Your task to perform on an android device: Open sound settings Image 0: 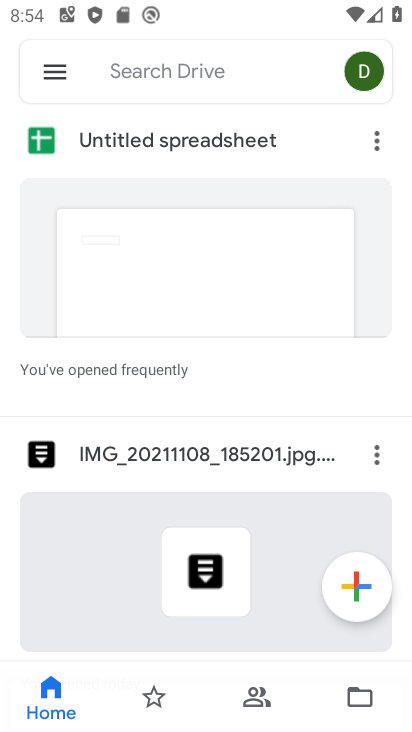
Step 0: press home button
Your task to perform on an android device: Open sound settings Image 1: 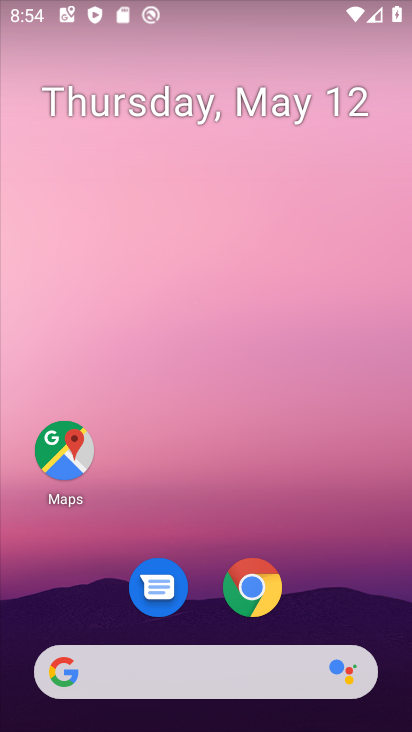
Step 1: drag from (349, 594) to (327, 213)
Your task to perform on an android device: Open sound settings Image 2: 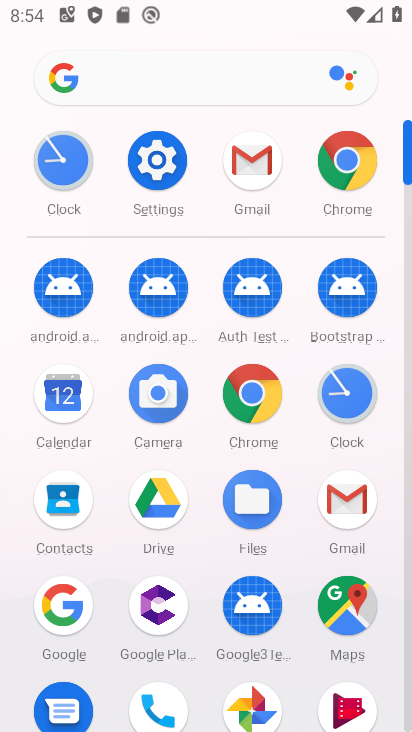
Step 2: click (143, 155)
Your task to perform on an android device: Open sound settings Image 3: 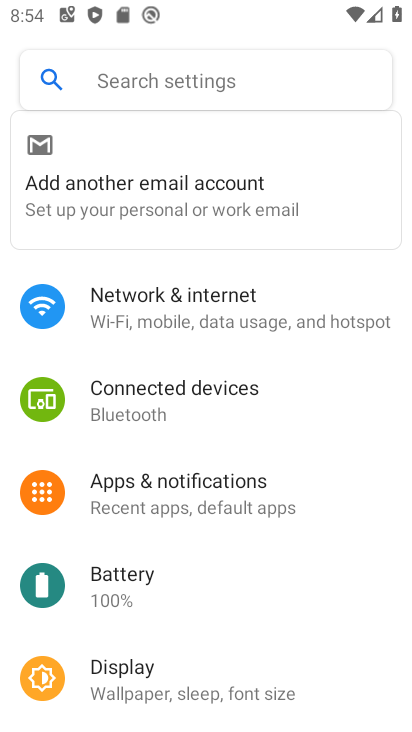
Step 3: drag from (224, 596) to (290, 194)
Your task to perform on an android device: Open sound settings Image 4: 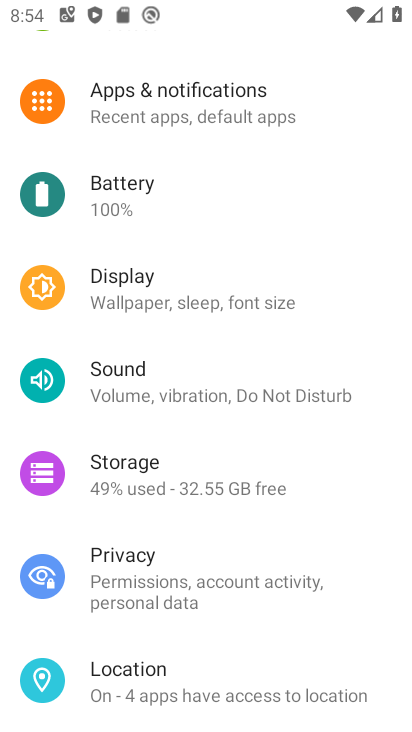
Step 4: drag from (203, 574) to (241, 225)
Your task to perform on an android device: Open sound settings Image 5: 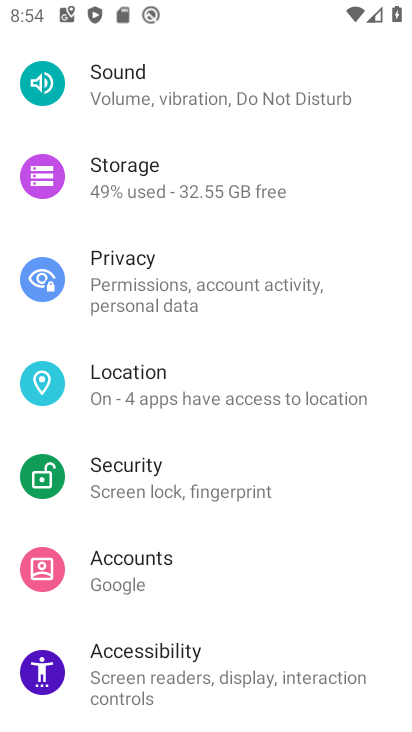
Step 5: click (158, 98)
Your task to perform on an android device: Open sound settings Image 6: 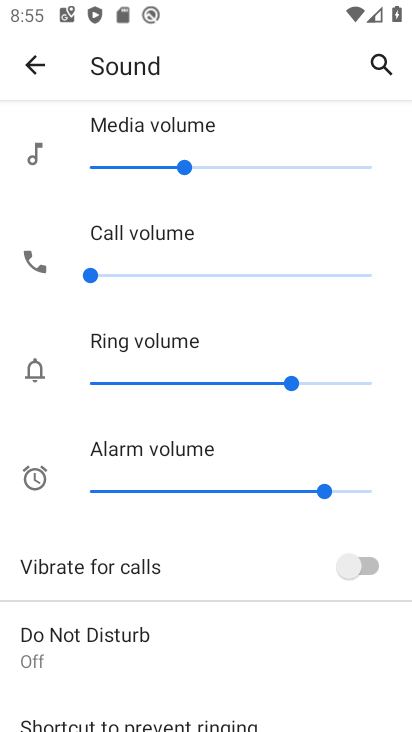
Step 6: task complete